Your task to perform on an android device: turn smart compose on in the gmail app Image 0: 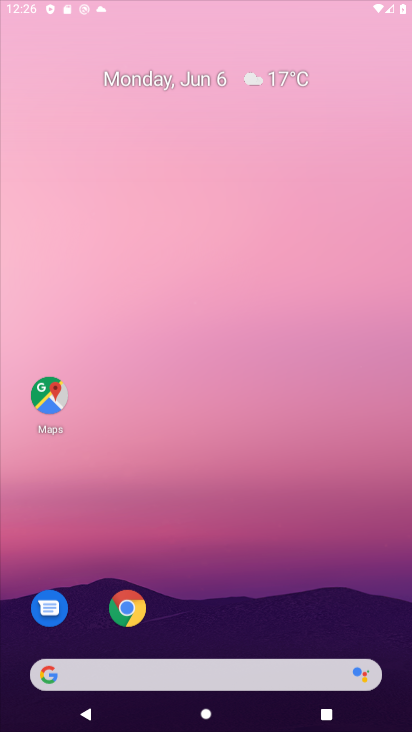
Step 0: click (186, 327)
Your task to perform on an android device: turn smart compose on in the gmail app Image 1: 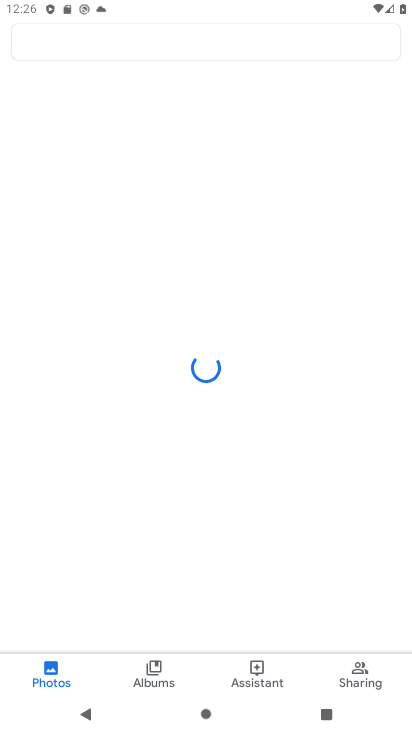
Step 1: press home button
Your task to perform on an android device: turn smart compose on in the gmail app Image 2: 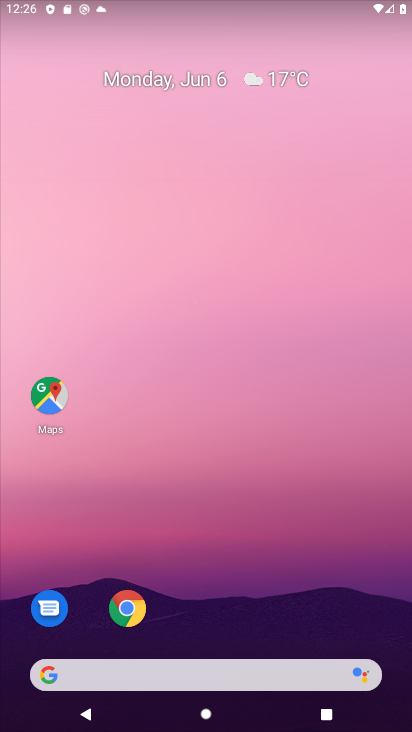
Step 2: drag from (201, 659) to (186, 254)
Your task to perform on an android device: turn smart compose on in the gmail app Image 3: 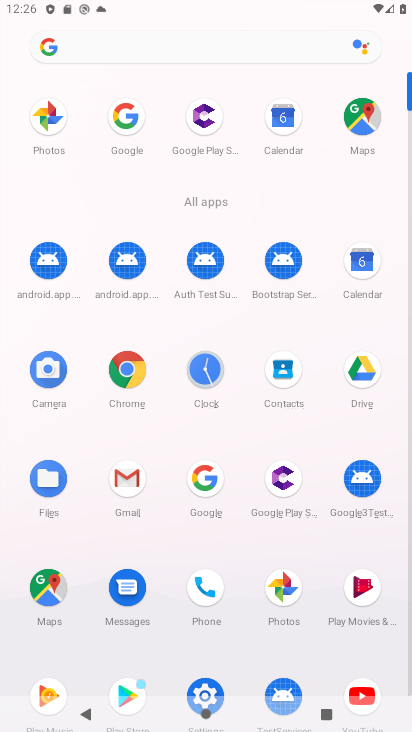
Step 3: click (132, 485)
Your task to perform on an android device: turn smart compose on in the gmail app Image 4: 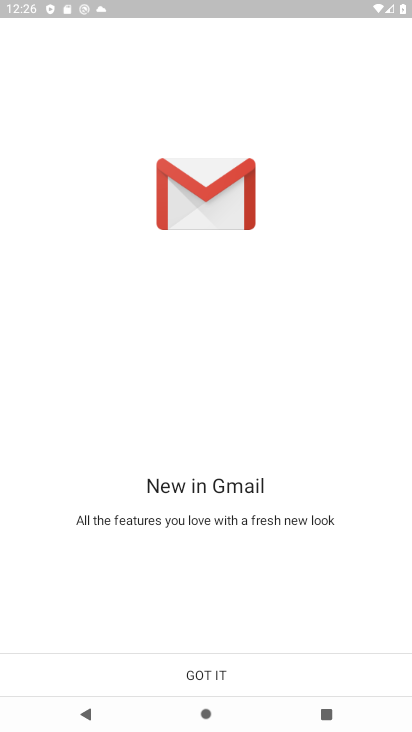
Step 4: click (192, 673)
Your task to perform on an android device: turn smart compose on in the gmail app Image 5: 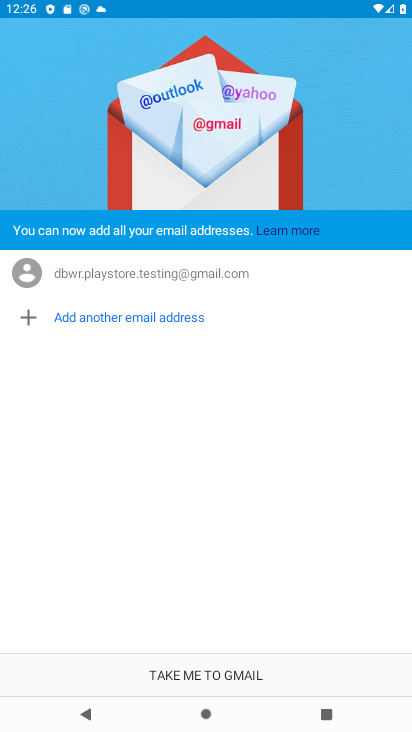
Step 5: click (194, 670)
Your task to perform on an android device: turn smart compose on in the gmail app Image 6: 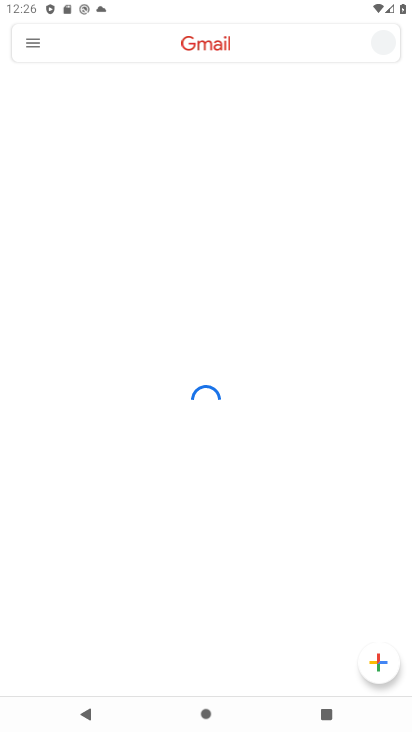
Step 6: click (33, 42)
Your task to perform on an android device: turn smart compose on in the gmail app Image 7: 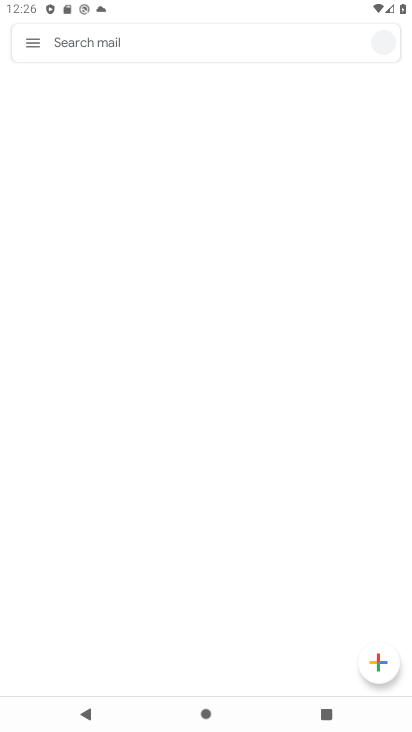
Step 7: click (90, 185)
Your task to perform on an android device: turn smart compose on in the gmail app Image 8: 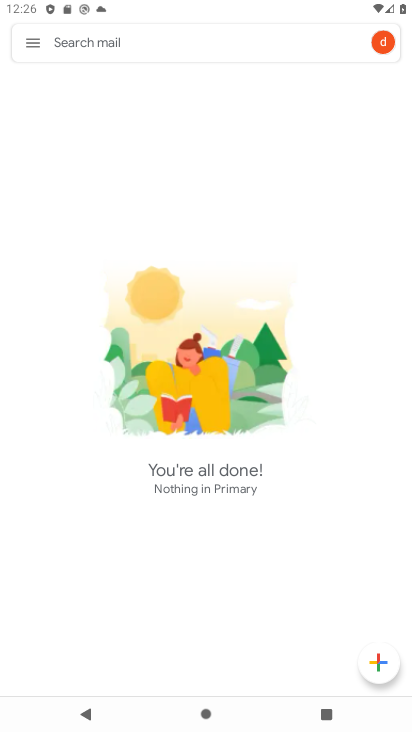
Step 8: click (32, 35)
Your task to perform on an android device: turn smart compose on in the gmail app Image 9: 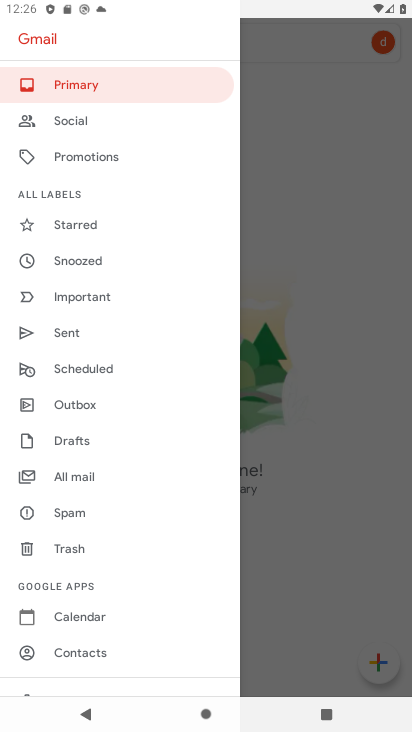
Step 9: drag from (55, 664) to (55, 419)
Your task to perform on an android device: turn smart compose on in the gmail app Image 10: 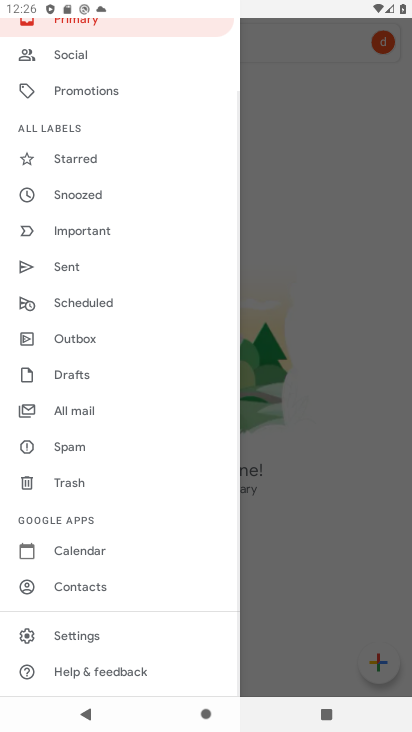
Step 10: click (84, 641)
Your task to perform on an android device: turn smart compose on in the gmail app Image 11: 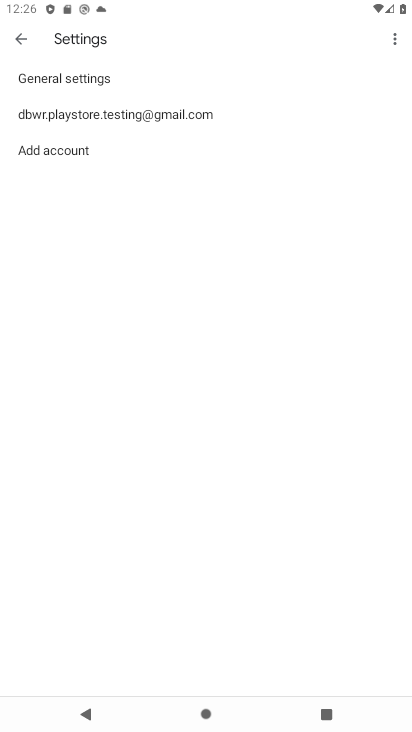
Step 11: click (108, 119)
Your task to perform on an android device: turn smart compose on in the gmail app Image 12: 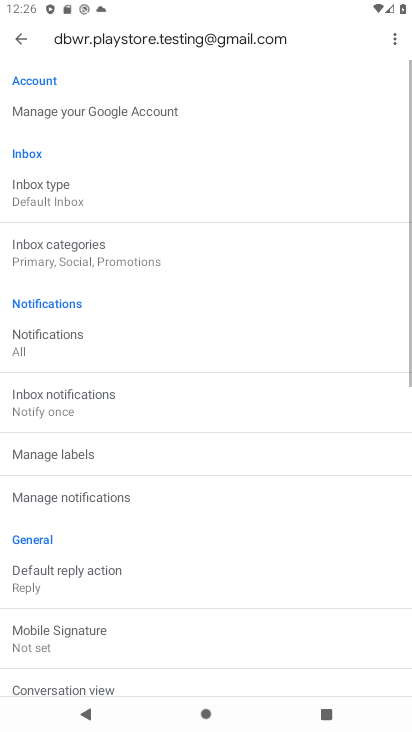
Step 12: task complete